Your task to perform on an android device: show emergency info Image 0: 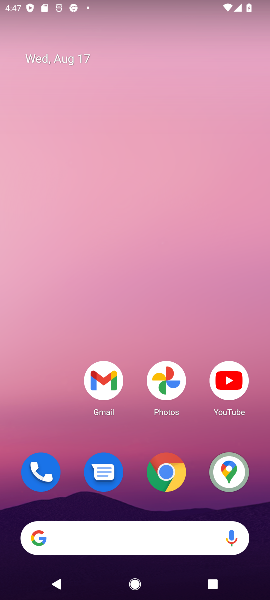
Step 0: drag from (136, 437) to (138, 83)
Your task to perform on an android device: show emergency info Image 1: 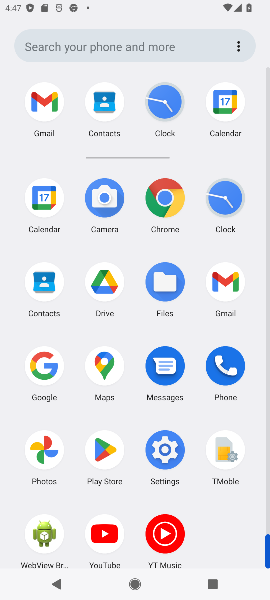
Step 1: click (160, 465)
Your task to perform on an android device: show emergency info Image 2: 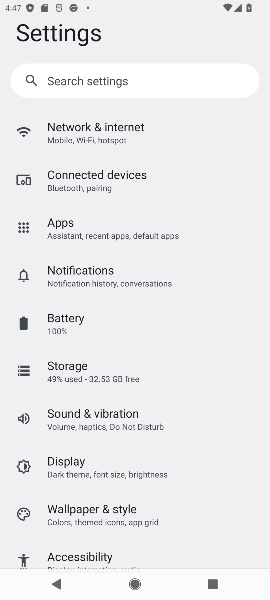
Step 2: drag from (104, 469) to (146, 96)
Your task to perform on an android device: show emergency info Image 3: 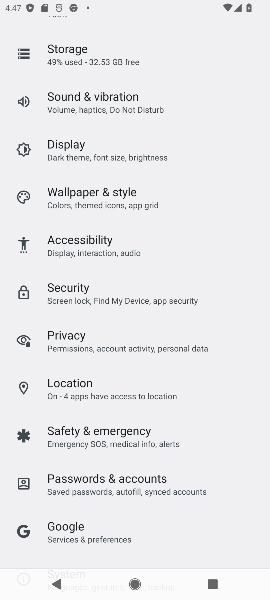
Step 3: drag from (144, 420) to (162, 163)
Your task to perform on an android device: show emergency info Image 4: 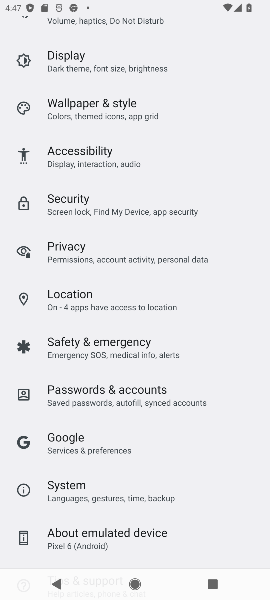
Step 4: drag from (124, 495) to (127, 181)
Your task to perform on an android device: show emergency info Image 5: 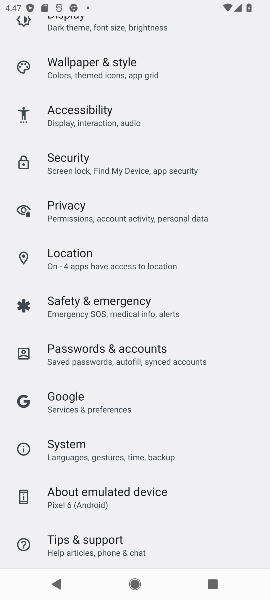
Step 5: drag from (112, 508) to (120, 121)
Your task to perform on an android device: show emergency info Image 6: 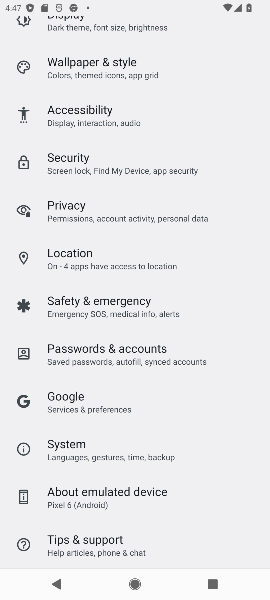
Step 6: drag from (125, 197) to (148, 501)
Your task to perform on an android device: show emergency info Image 7: 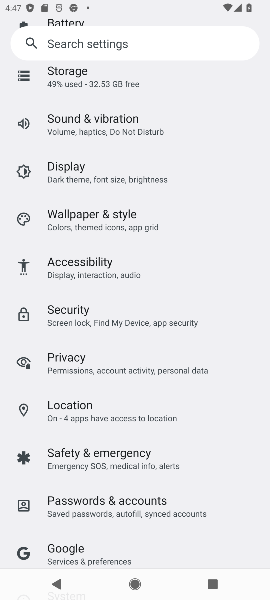
Step 7: drag from (147, 222) to (161, 520)
Your task to perform on an android device: show emergency info Image 8: 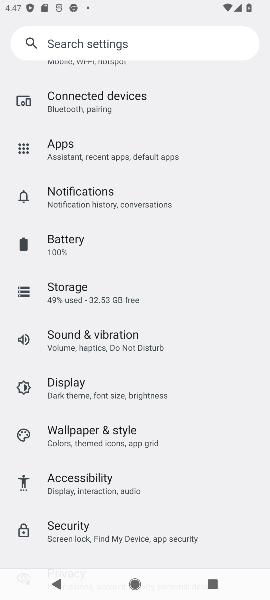
Step 8: drag from (108, 503) to (111, 116)
Your task to perform on an android device: show emergency info Image 9: 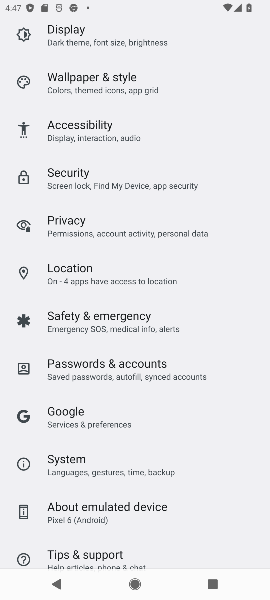
Step 9: drag from (116, 541) to (118, 230)
Your task to perform on an android device: show emergency info Image 10: 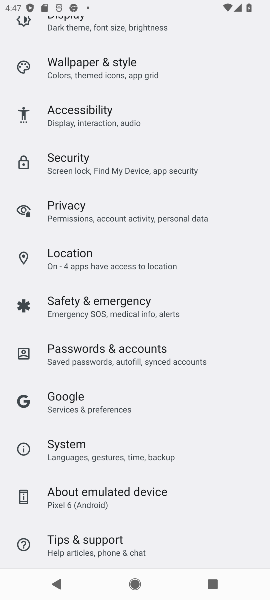
Step 10: click (92, 500)
Your task to perform on an android device: show emergency info Image 11: 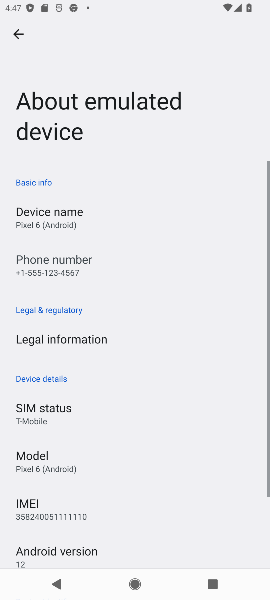
Step 11: task complete